Your task to perform on an android device: Open Youtube and go to "Your channel" Image 0: 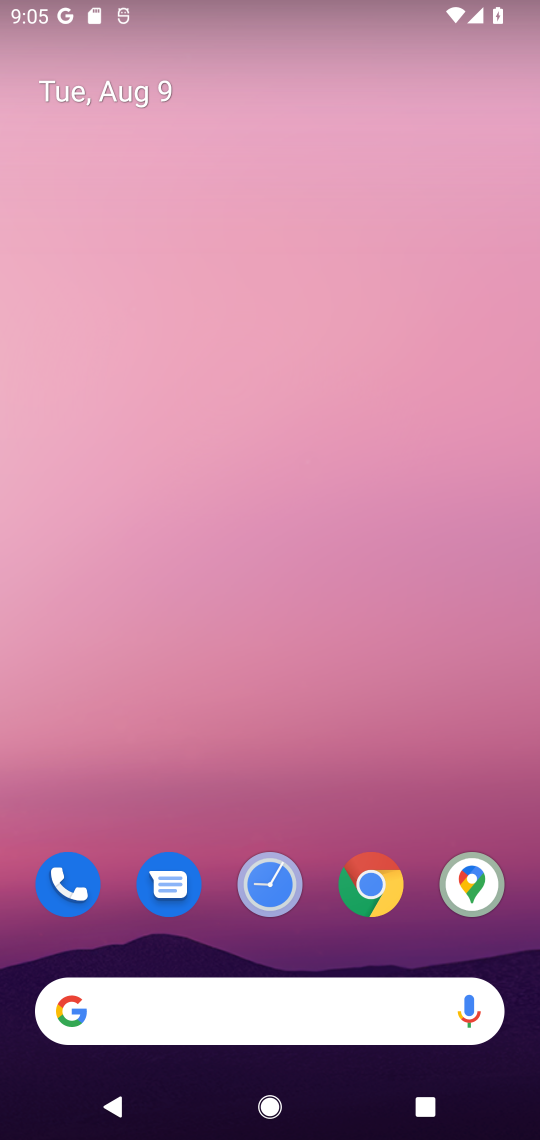
Step 0: drag from (255, 829) to (366, 195)
Your task to perform on an android device: Open Youtube and go to "Your channel" Image 1: 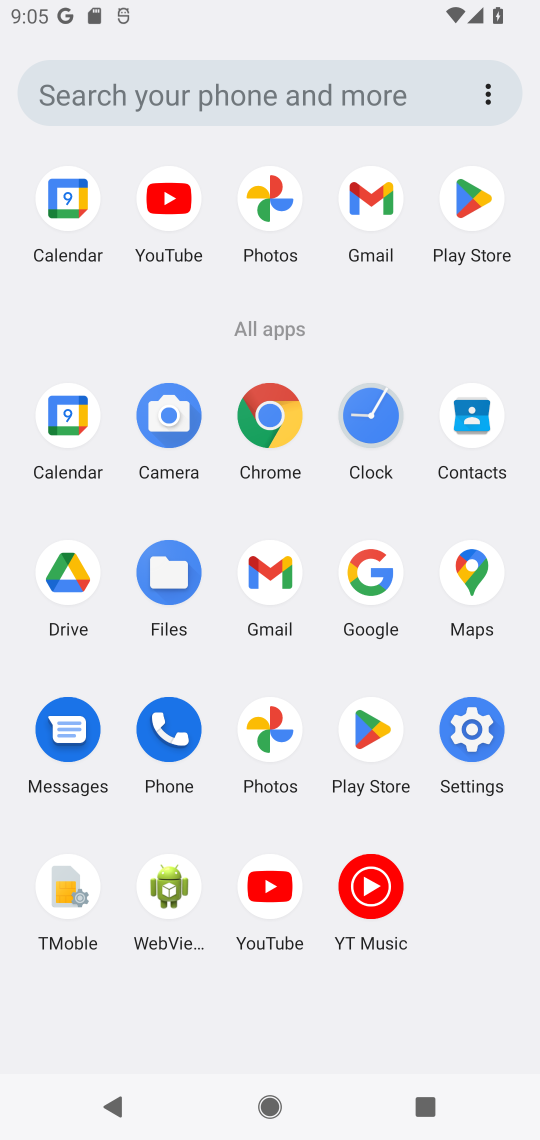
Step 1: click (278, 886)
Your task to perform on an android device: Open Youtube and go to "Your channel" Image 2: 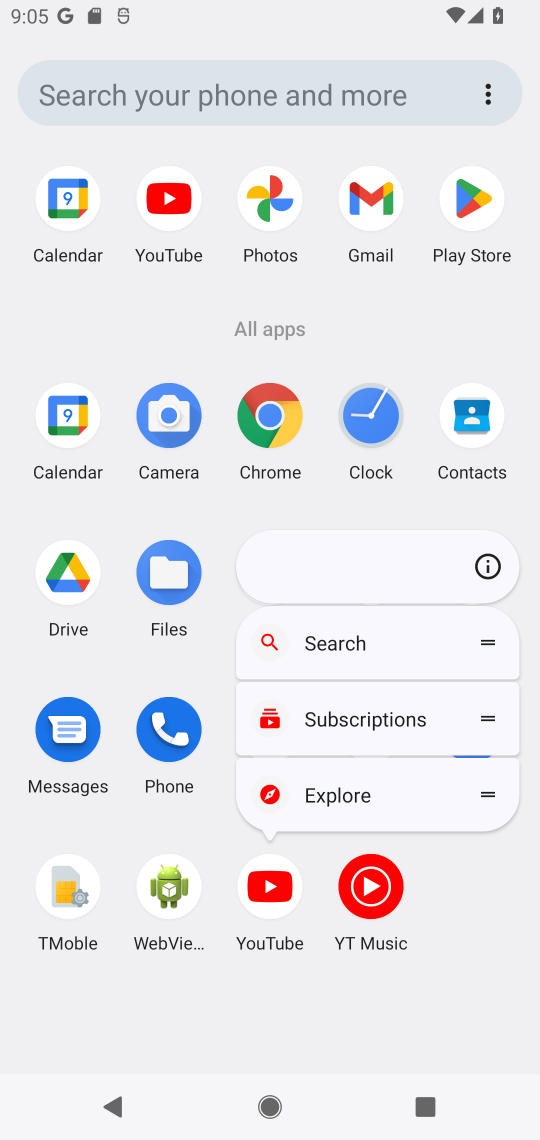
Step 2: click (278, 886)
Your task to perform on an android device: Open Youtube and go to "Your channel" Image 3: 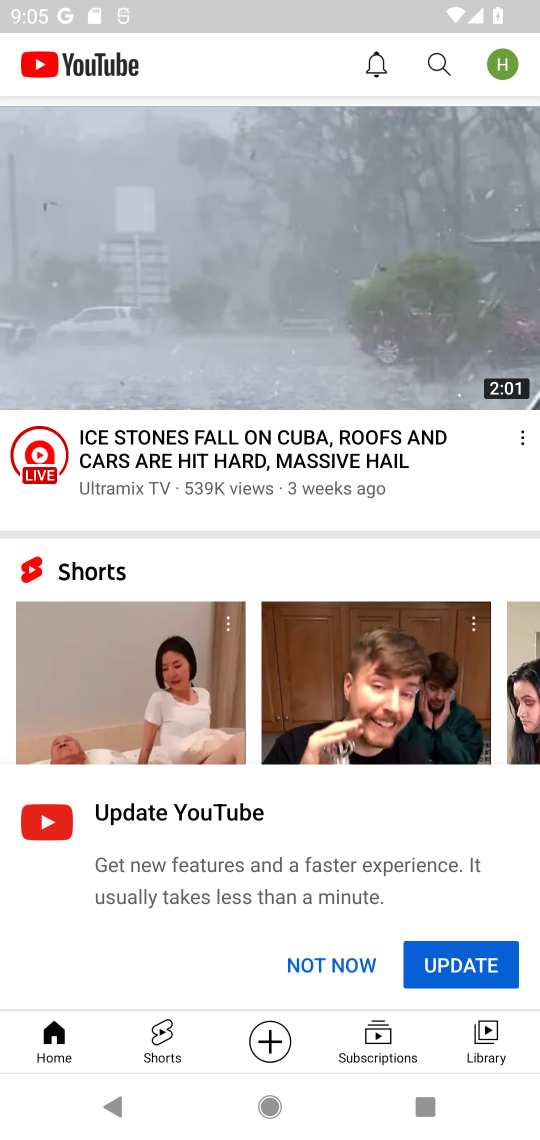
Step 3: click (444, 65)
Your task to perform on an android device: Open Youtube and go to "Your channel" Image 4: 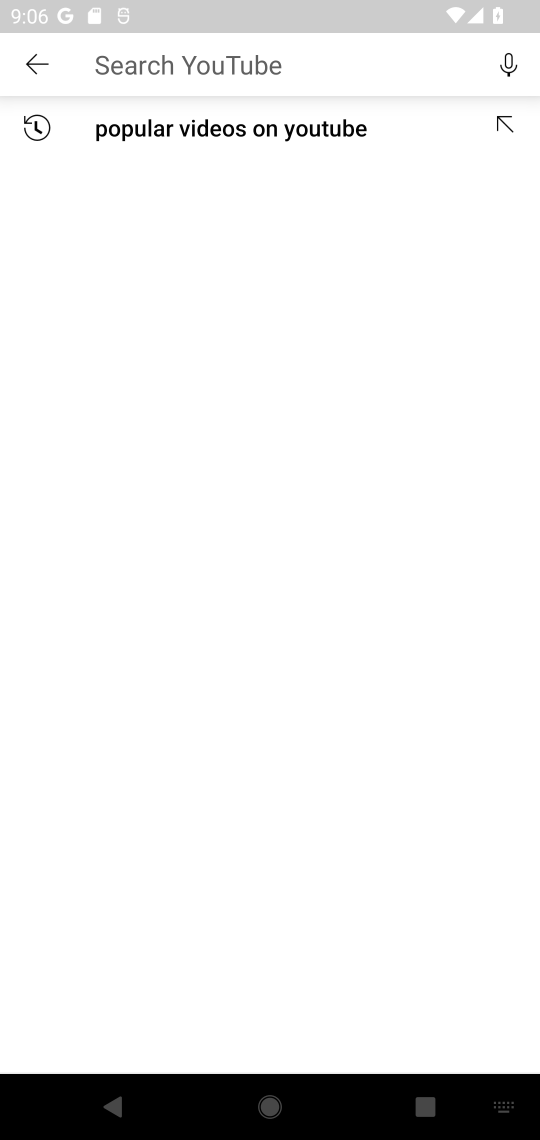
Step 4: type "india "
Your task to perform on an android device: Open Youtube and go to "Your channel" Image 5: 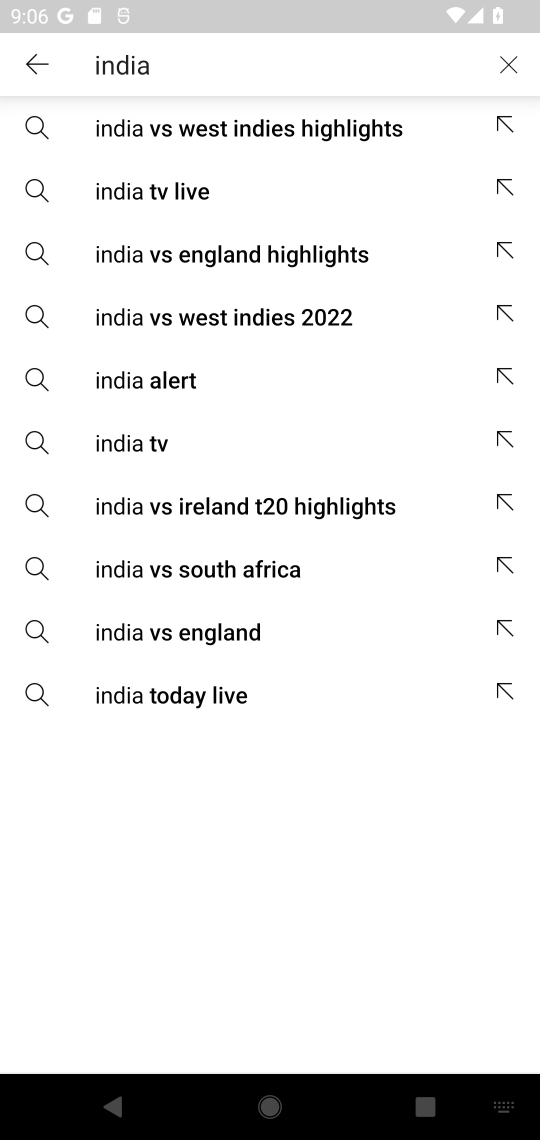
Step 5: click (241, 141)
Your task to perform on an android device: Open Youtube and go to "Your channel" Image 6: 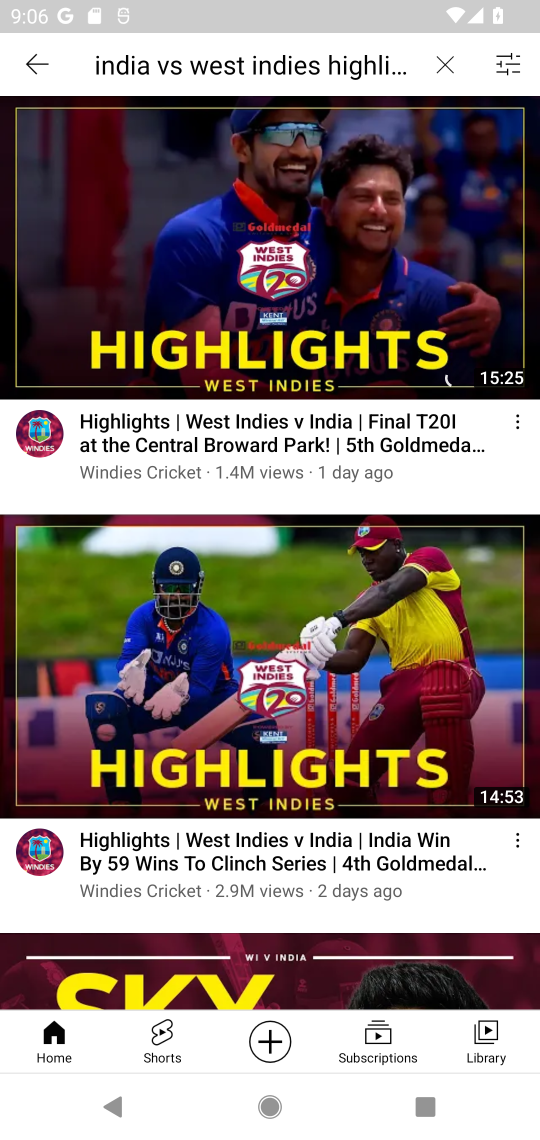
Step 6: task complete